Your task to perform on an android device: visit the assistant section in the google photos Image 0: 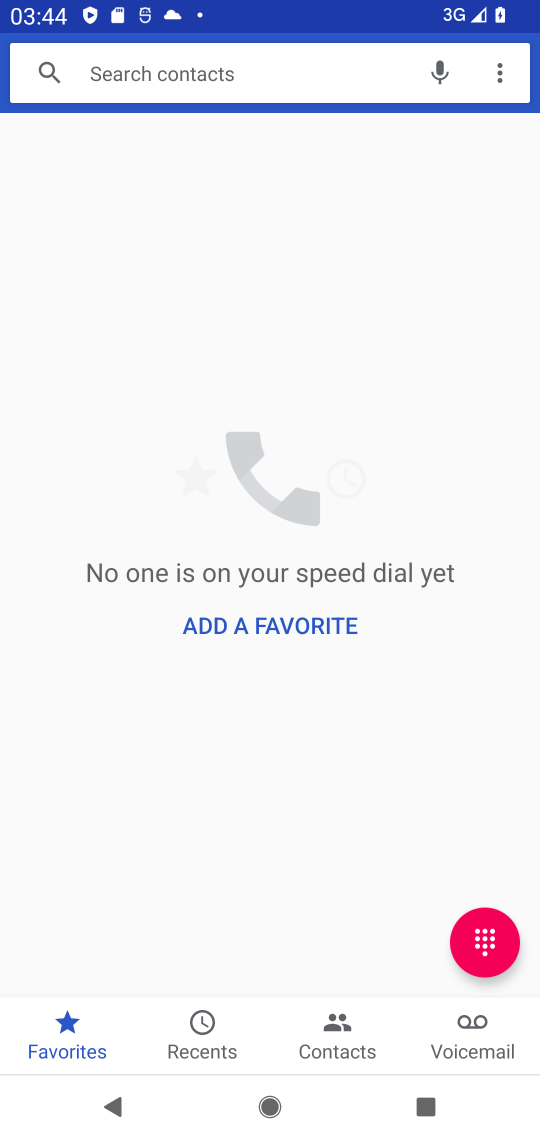
Step 0: press home button
Your task to perform on an android device: visit the assistant section in the google photos Image 1: 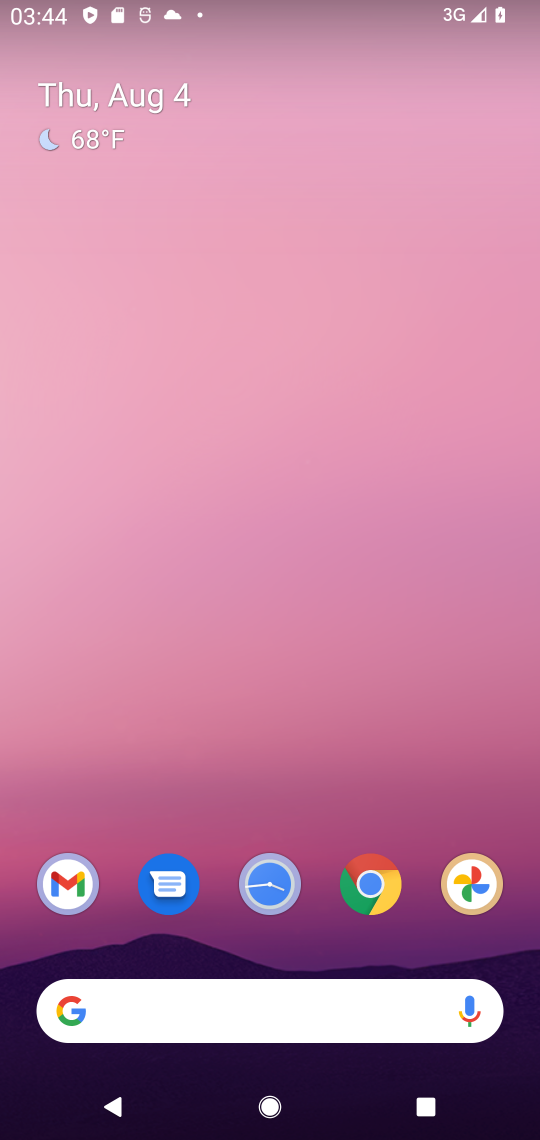
Step 1: drag from (317, 823) to (289, 242)
Your task to perform on an android device: visit the assistant section in the google photos Image 2: 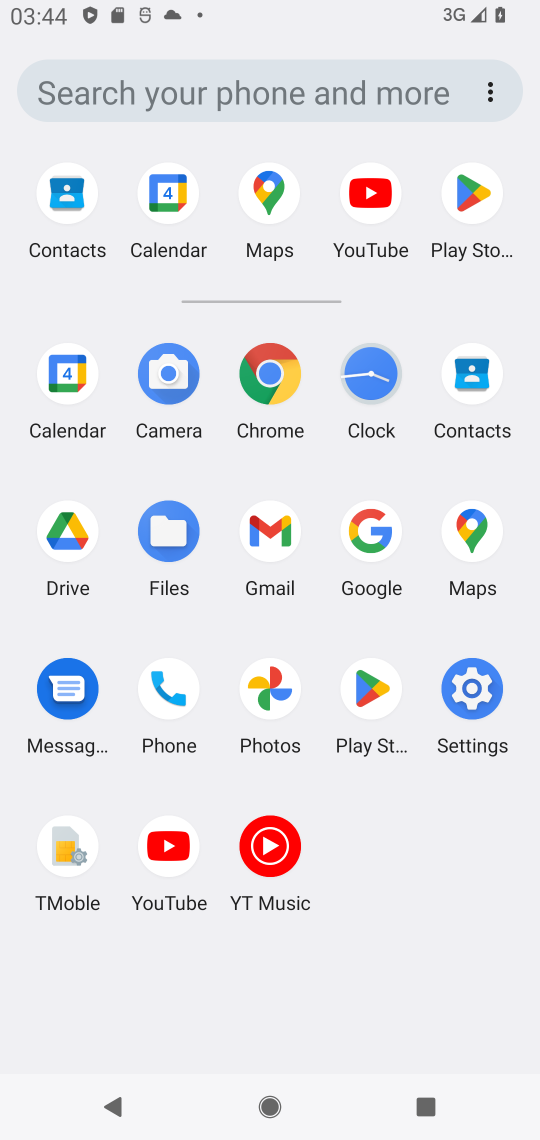
Step 2: click (270, 695)
Your task to perform on an android device: visit the assistant section in the google photos Image 3: 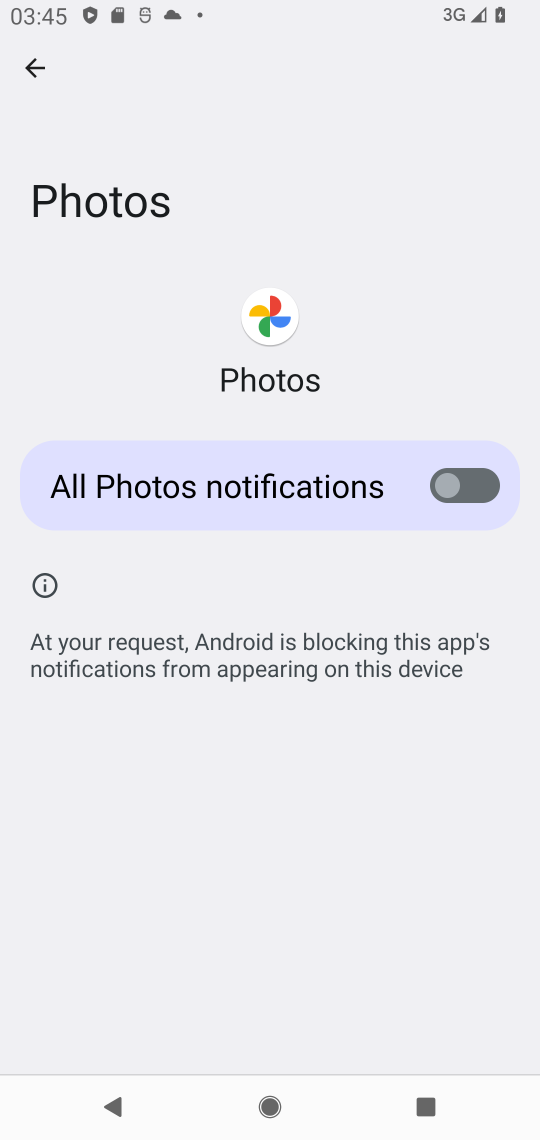
Step 3: press back button
Your task to perform on an android device: visit the assistant section in the google photos Image 4: 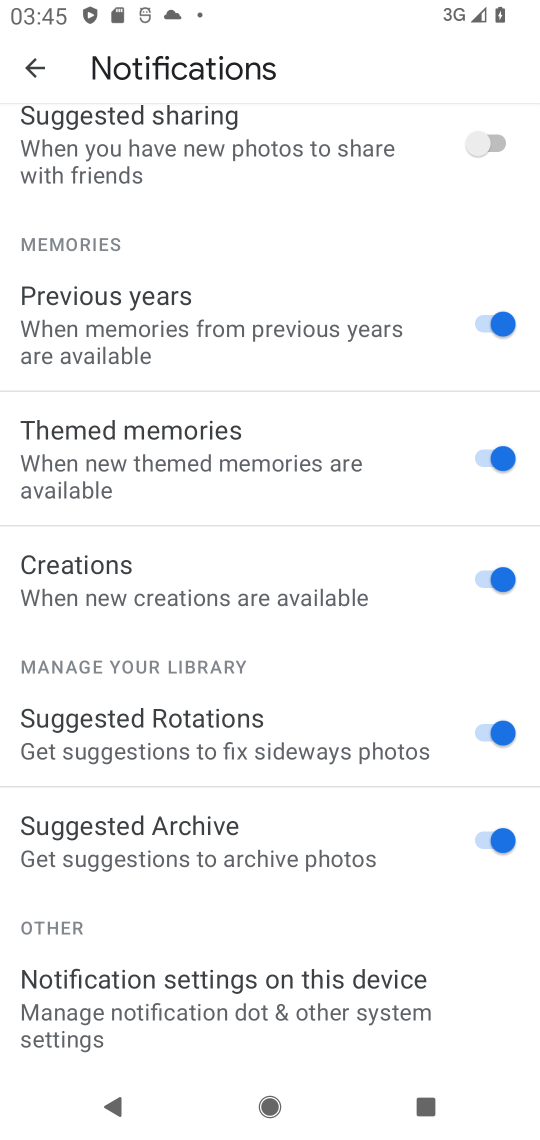
Step 4: press back button
Your task to perform on an android device: visit the assistant section in the google photos Image 5: 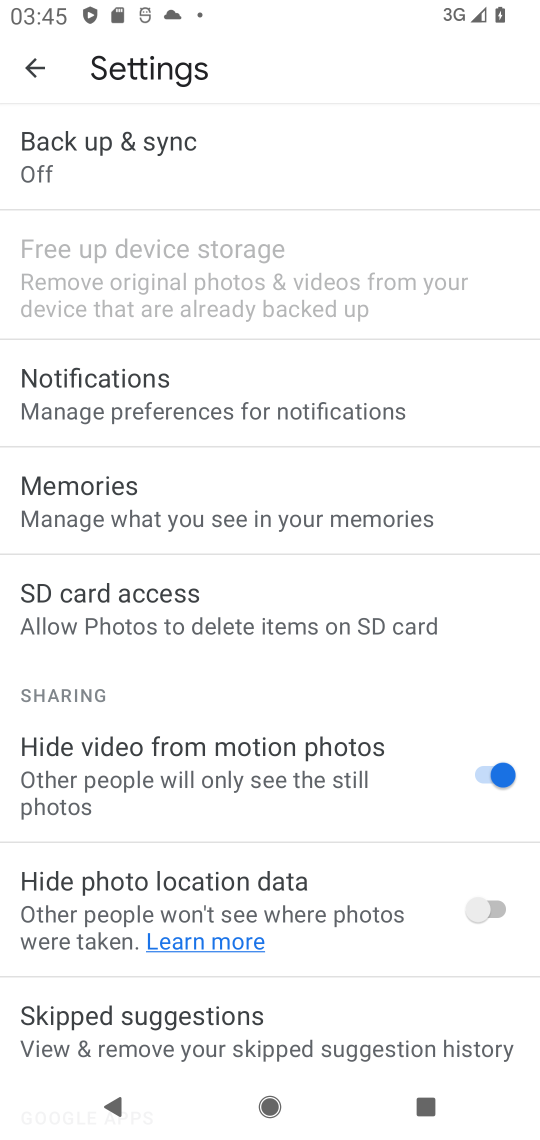
Step 5: press back button
Your task to perform on an android device: visit the assistant section in the google photos Image 6: 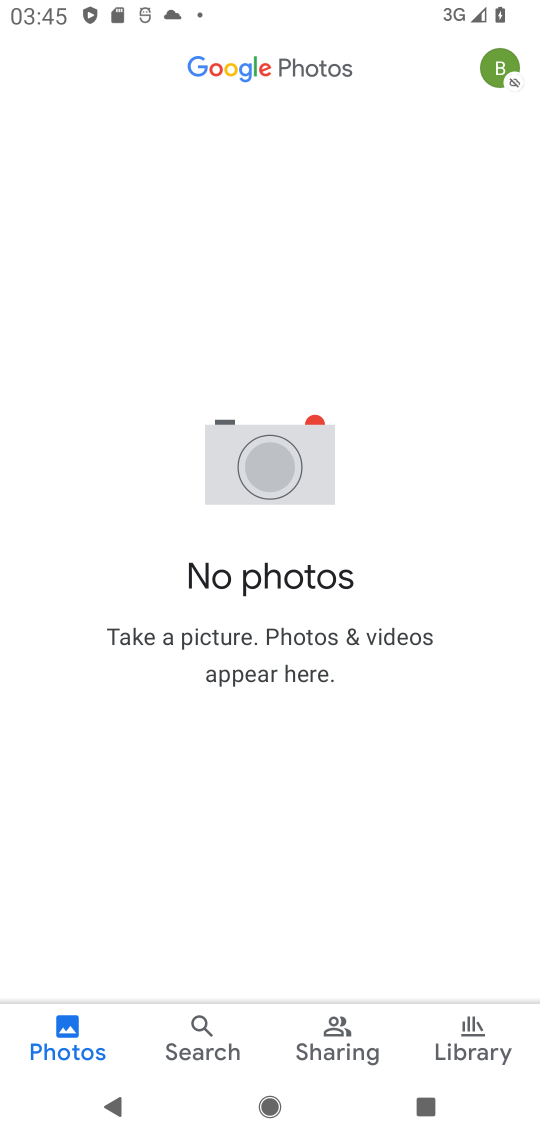
Step 6: click (467, 1043)
Your task to perform on an android device: visit the assistant section in the google photos Image 7: 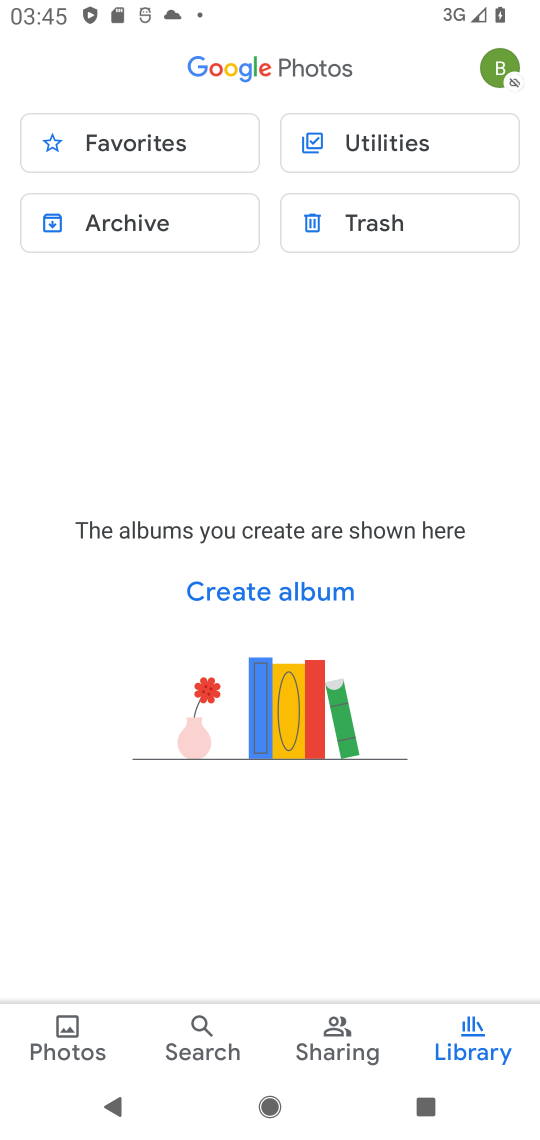
Step 7: task complete